Your task to perform on an android device: turn on location history Image 0: 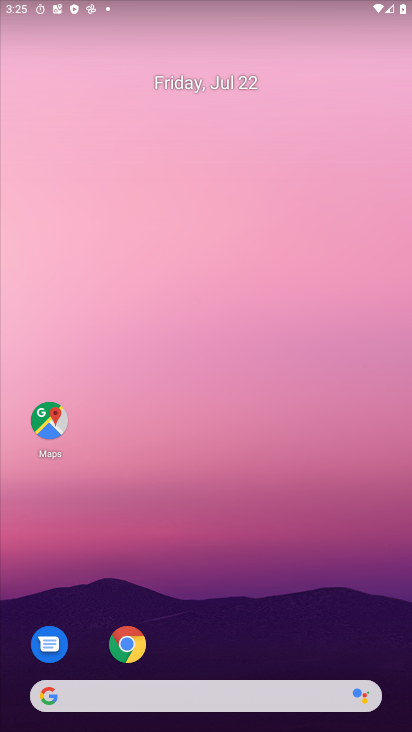
Step 0: drag from (192, 681) to (230, 237)
Your task to perform on an android device: turn on location history Image 1: 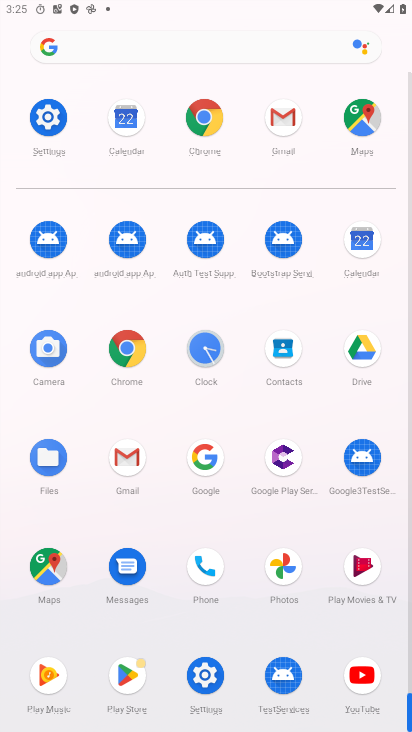
Step 1: click (52, 112)
Your task to perform on an android device: turn on location history Image 2: 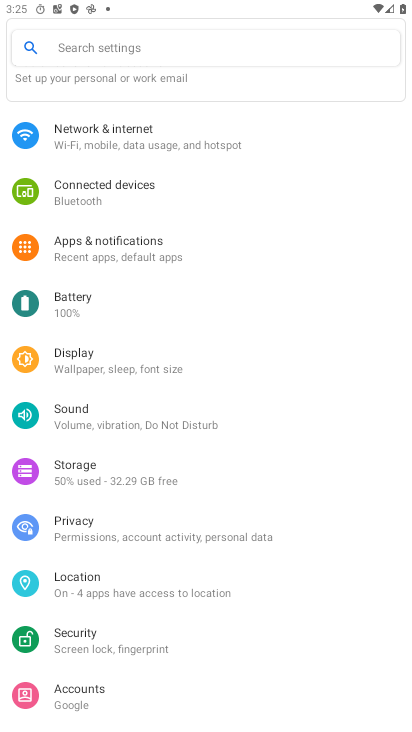
Step 2: drag from (95, 234) to (55, 435)
Your task to perform on an android device: turn on location history Image 3: 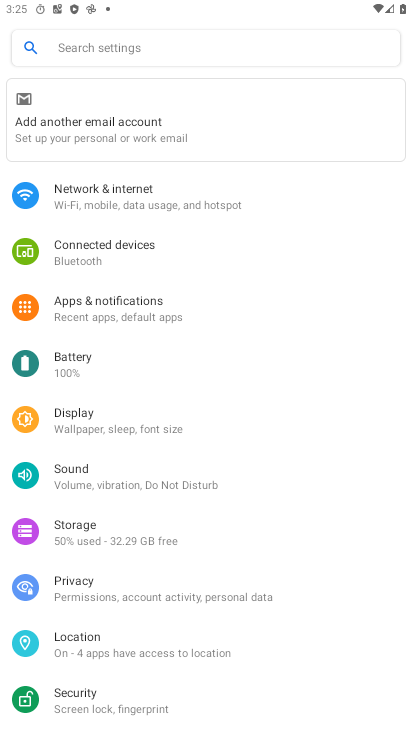
Step 3: click (135, 649)
Your task to perform on an android device: turn on location history Image 4: 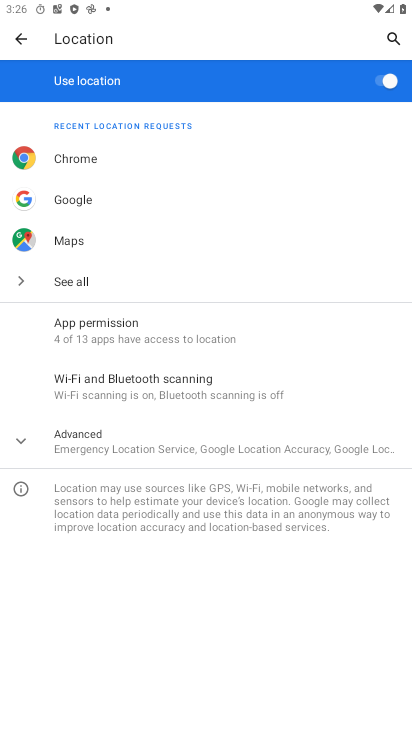
Step 4: click (146, 446)
Your task to perform on an android device: turn on location history Image 5: 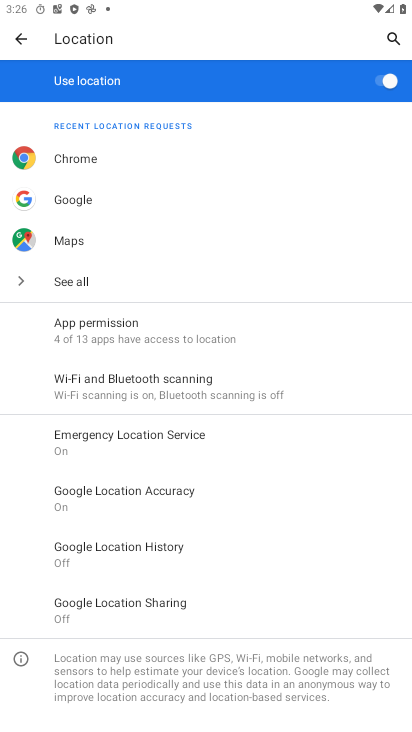
Step 5: click (165, 554)
Your task to perform on an android device: turn on location history Image 6: 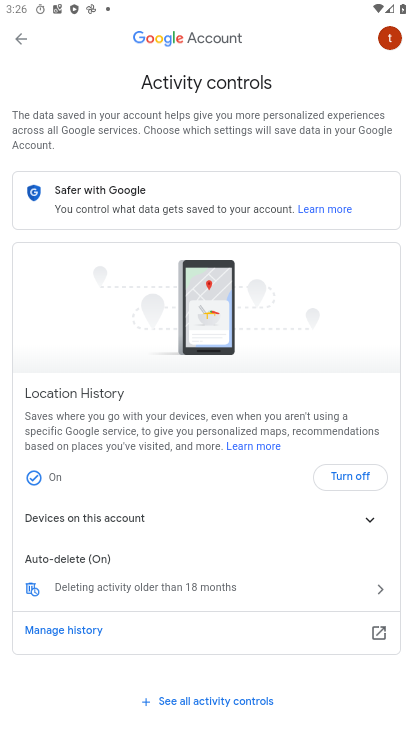
Step 6: task complete